Your task to perform on an android device: Show me recent news Image 0: 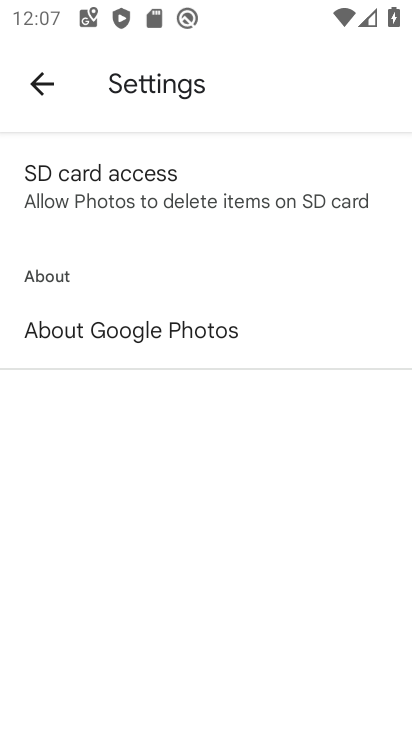
Step 0: press home button
Your task to perform on an android device: Show me recent news Image 1: 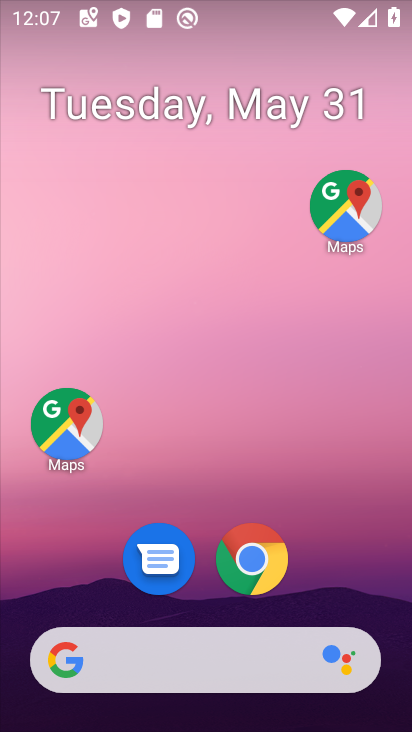
Step 1: click (259, 554)
Your task to perform on an android device: Show me recent news Image 2: 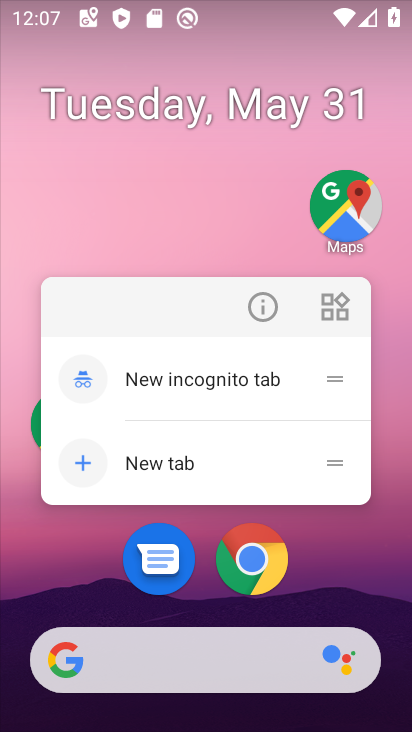
Step 2: click (246, 566)
Your task to perform on an android device: Show me recent news Image 3: 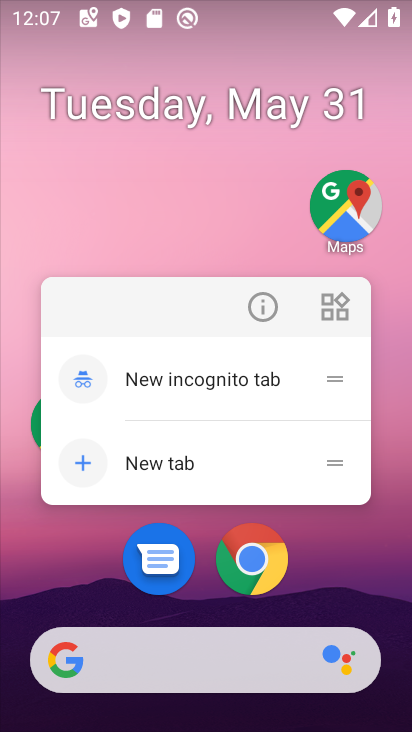
Step 3: click (248, 565)
Your task to perform on an android device: Show me recent news Image 4: 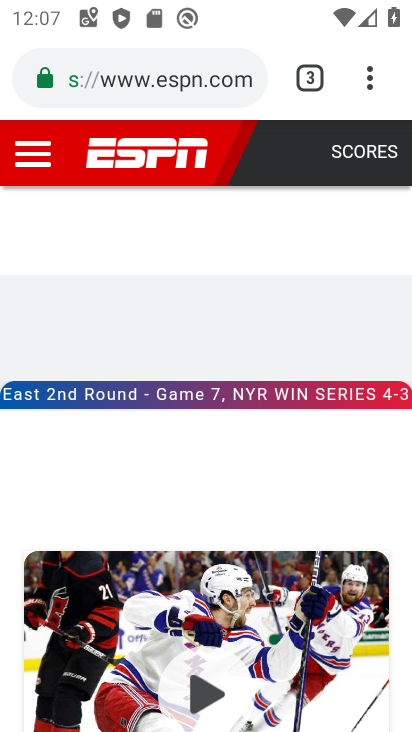
Step 4: click (219, 66)
Your task to perform on an android device: Show me recent news Image 5: 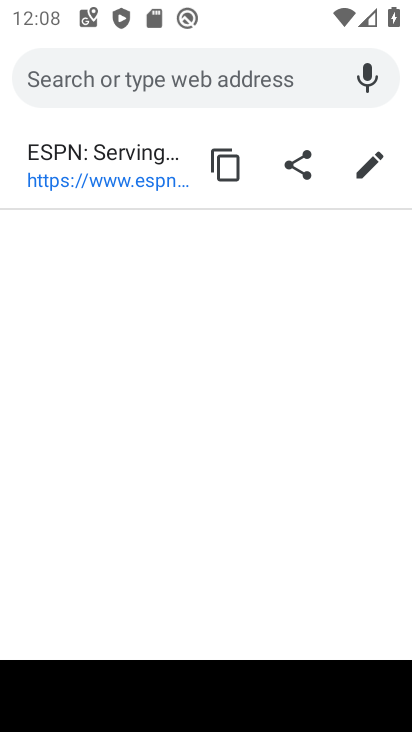
Step 5: type "news"
Your task to perform on an android device: Show me recent news Image 6: 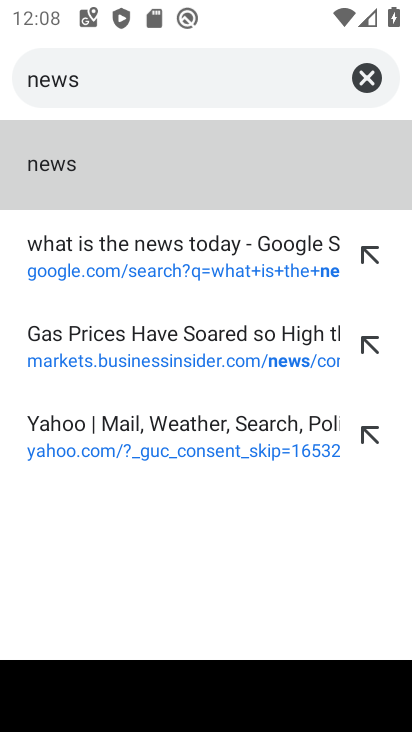
Step 6: click (29, 171)
Your task to perform on an android device: Show me recent news Image 7: 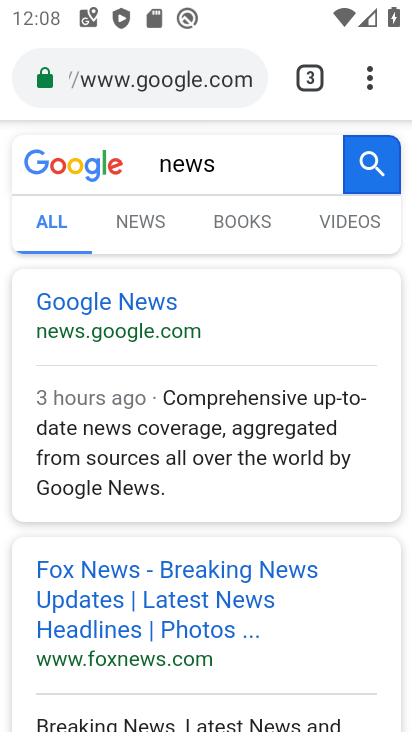
Step 7: click (154, 217)
Your task to perform on an android device: Show me recent news Image 8: 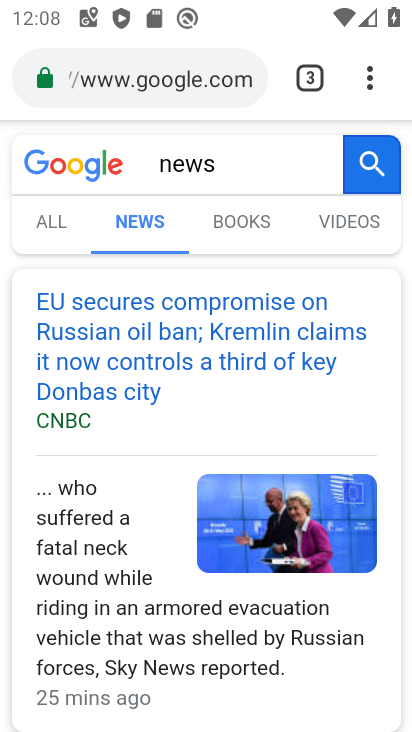
Step 8: task complete